Your task to perform on an android device: empty trash in google photos Image 0: 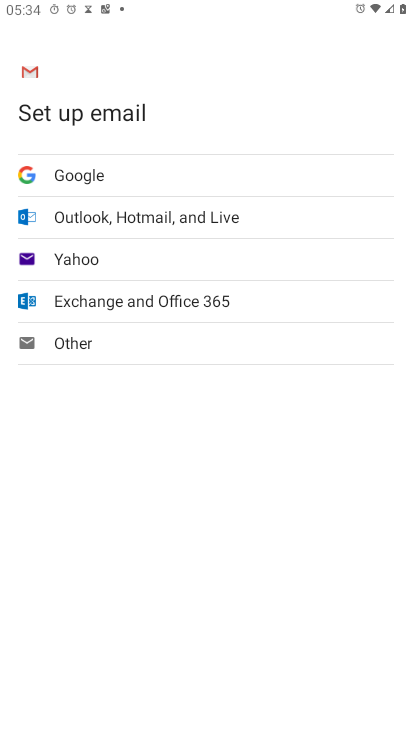
Step 0: press home button
Your task to perform on an android device: empty trash in google photos Image 1: 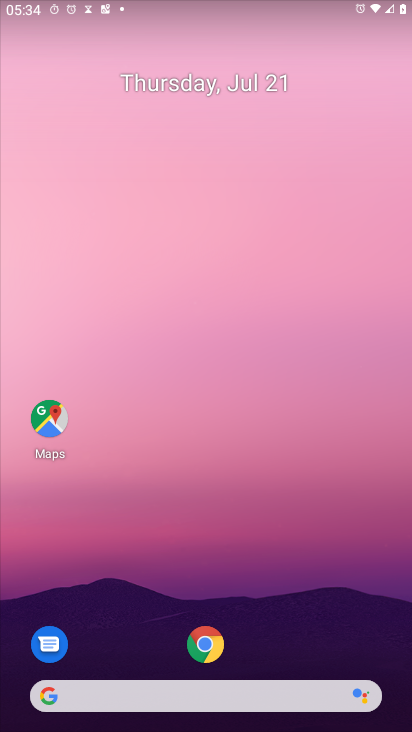
Step 1: drag from (287, 509) to (321, 226)
Your task to perform on an android device: empty trash in google photos Image 2: 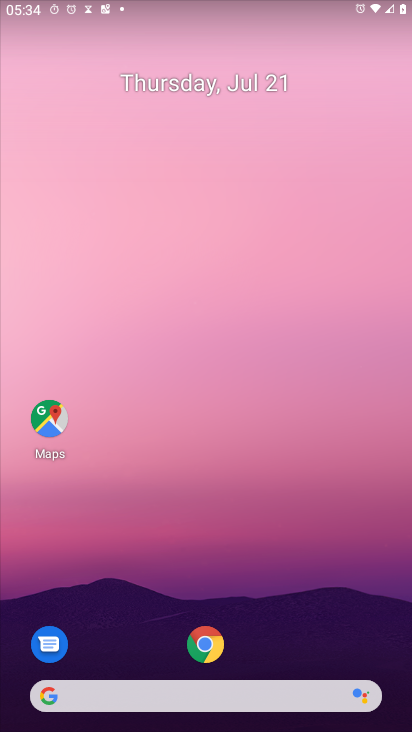
Step 2: drag from (314, 607) to (324, 94)
Your task to perform on an android device: empty trash in google photos Image 3: 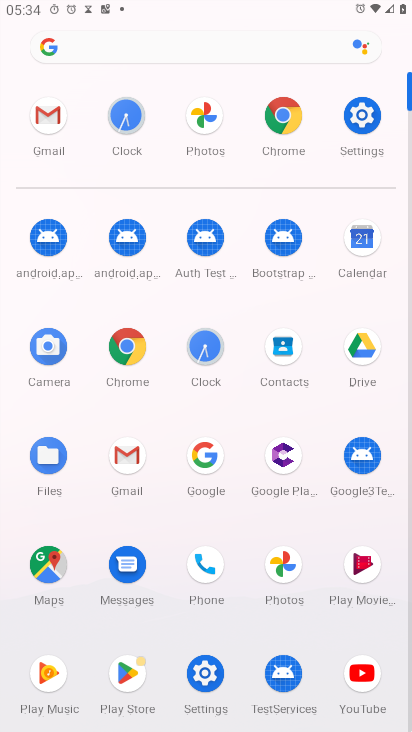
Step 3: click (283, 554)
Your task to perform on an android device: empty trash in google photos Image 4: 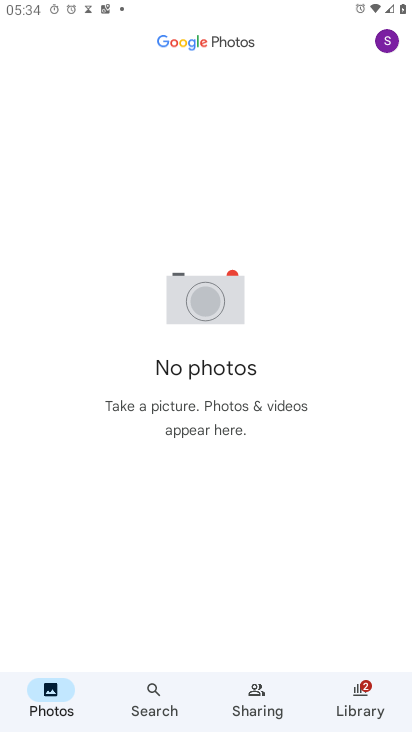
Step 4: click (396, 41)
Your task to perform on an android device: empty trash in google photos Image 5: 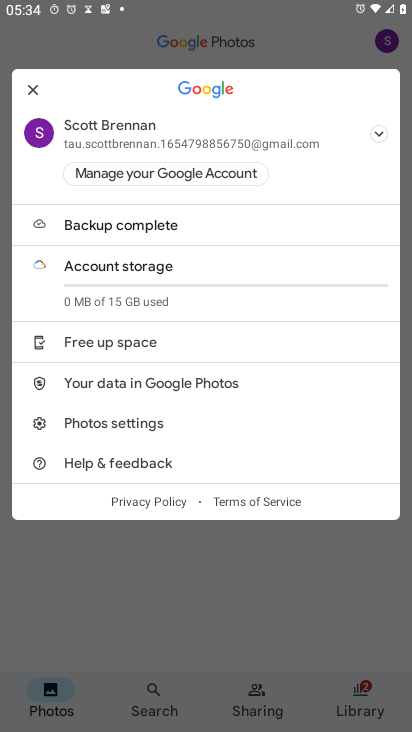
Step 5: click (155, 420)
Your task to perform on an android device: empty trash in google photos Image 6: 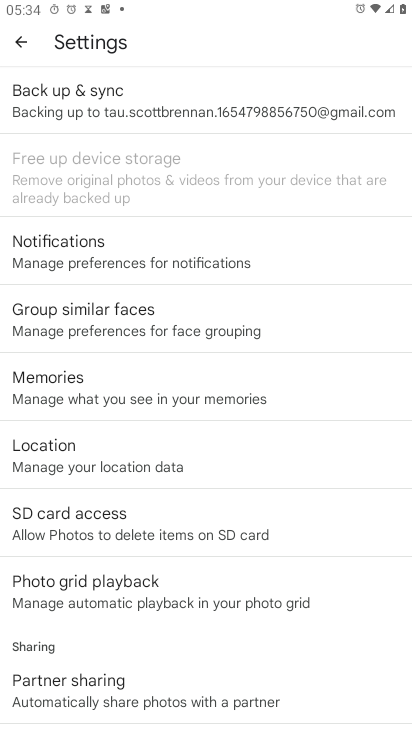
Step 6: drag from (124, 654) to (203, 217)
Your task to perform on an android device: empty trash in google photos Image 7: 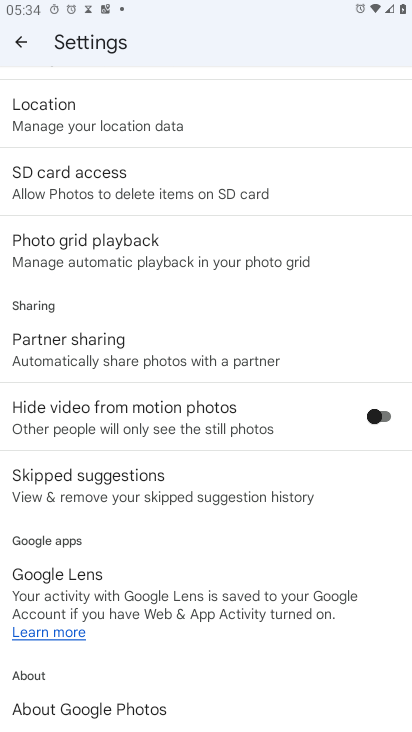
Step 7: click (21, 39)
Your task to perform on an android device: empty trash in google photos Image 8: 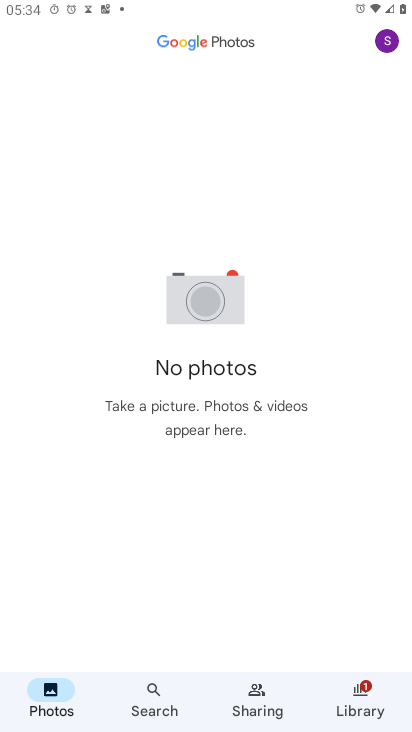
Step 8: press enter
Your task to perform on an android device: empty trash in google photos Image 9: 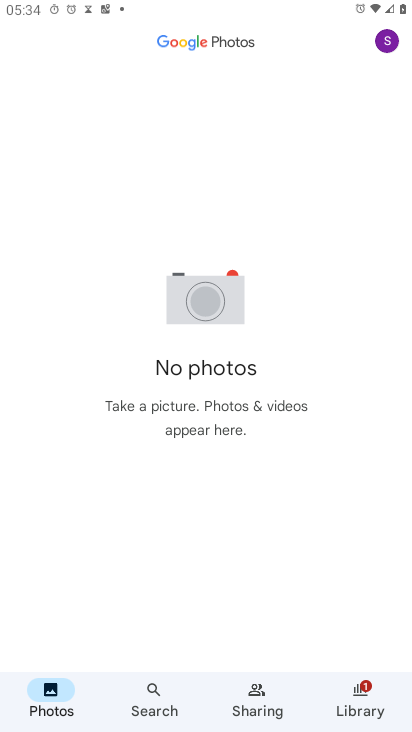
Step 9: press home button
Your task to perform on an android device: empty trash in google photos Image 10: 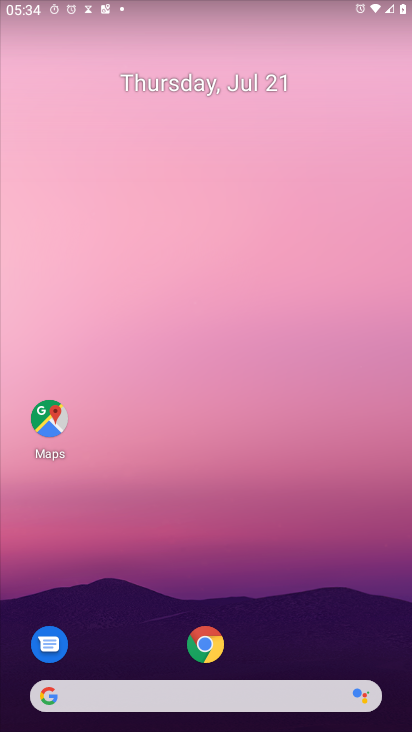
Step 10: drag from (272, 628) to (256, 101)
Your task to perform on an android device: empty trash in google photos Image 11: 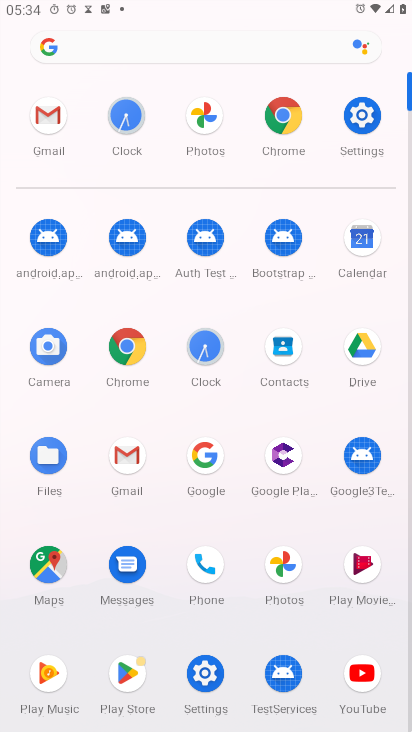
Step 11: click (290, 565)
Your task to perform on an android device: empty trash in google photos Image 12: 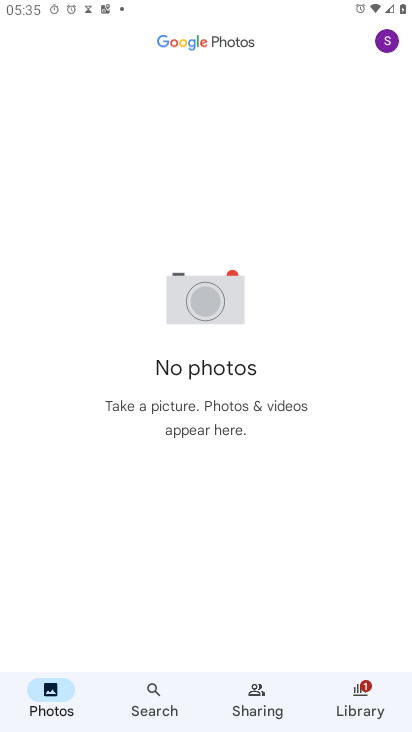
Step 12: click (359, 695)
Your task to perform on an android device: empty trash in google photos Image 13: 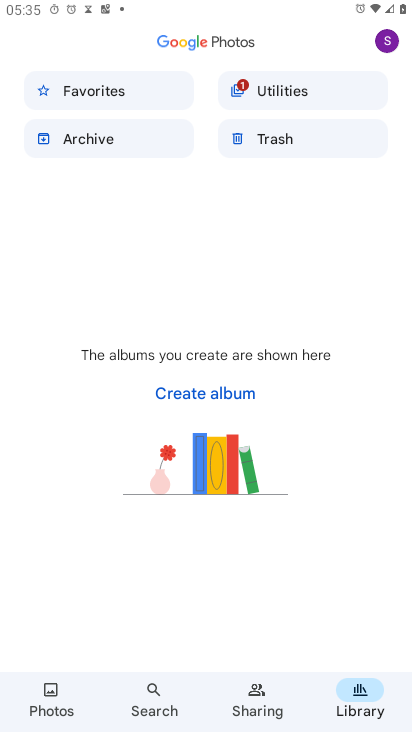
Step 13: click (270, 133)
Your task to perform on an android device: empty trash in google photos Image 14: 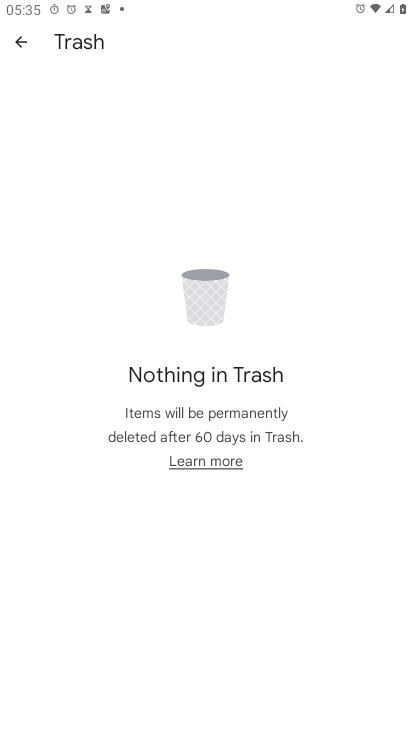
Step 14: task complete